Your task to perform on an android device: Open privacy settings Image 0: 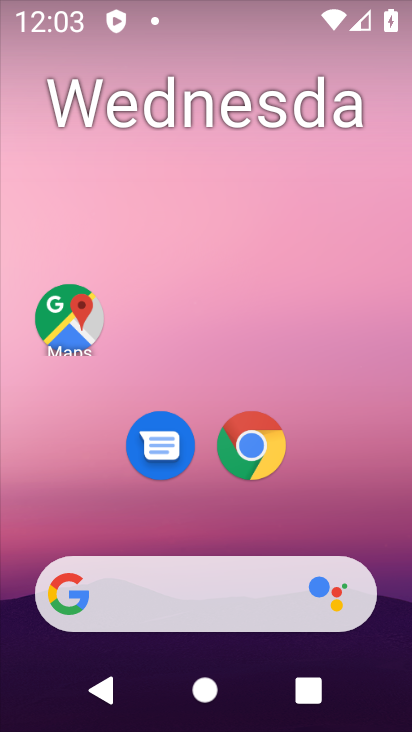
Step 0: click (266, 471)
Your task to perform on an android device: Open privacy settings Image 1: 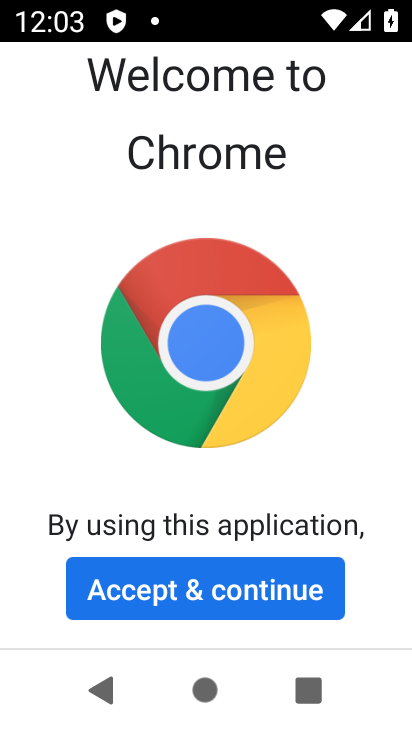
Step 1: click (277, 596)
Your task to perform on an android device: Open privacy settings Image 2: 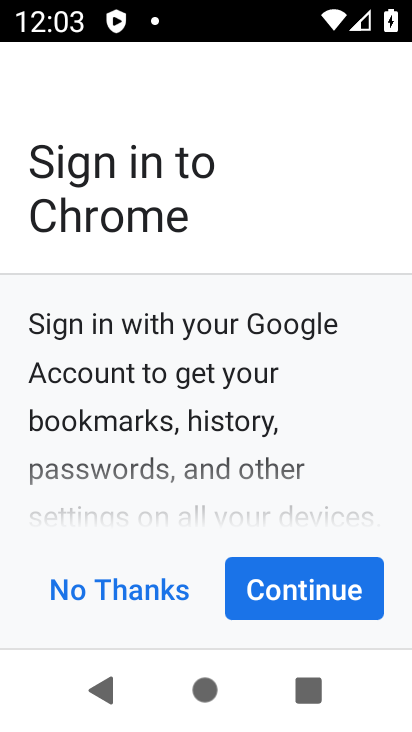
Step 2: click (320, 588)
Your task to perform on an android device: Open privacy settings Image 3: 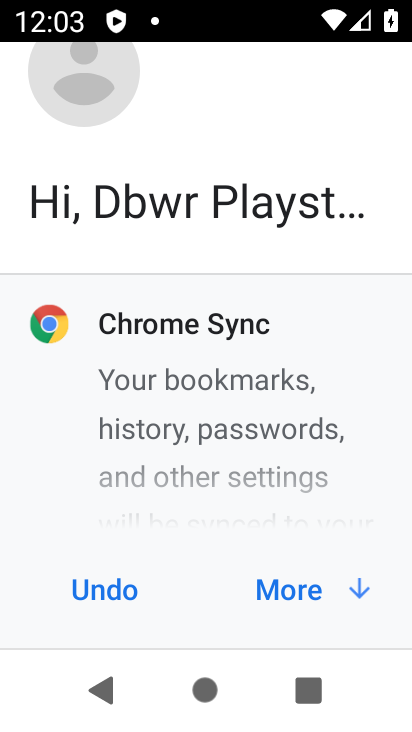
Step 3: click (321, 589)
Your task to perform on an android device: Open privacy settings Image 4: 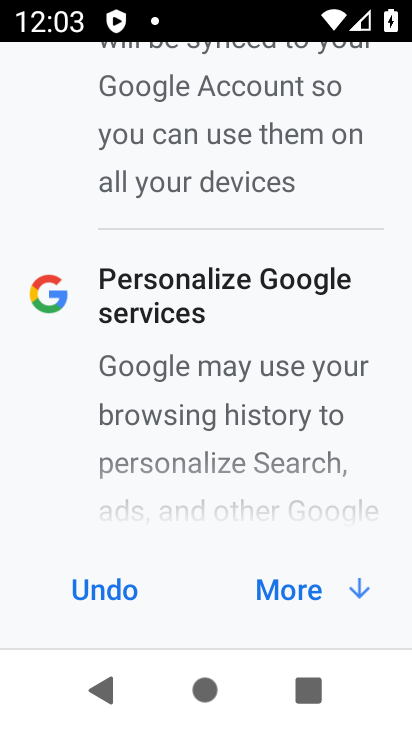
Step 4: click (310, 595)
Your task to perform on an android device: Open privacy settings Image 5: 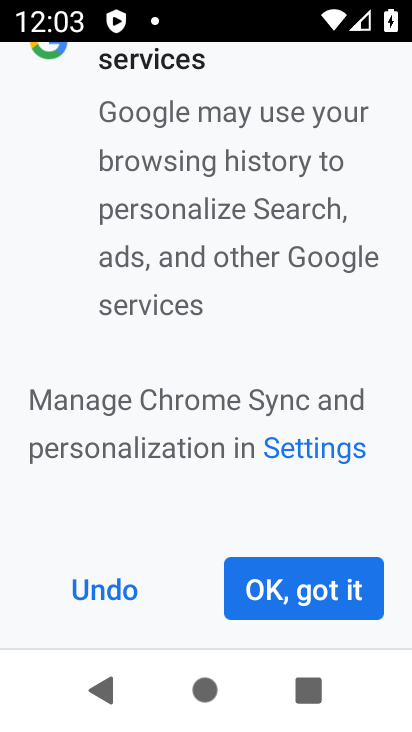
Step 5: click (310, 595)
Your task to perform on an android device: Open privacy settings Image 6: 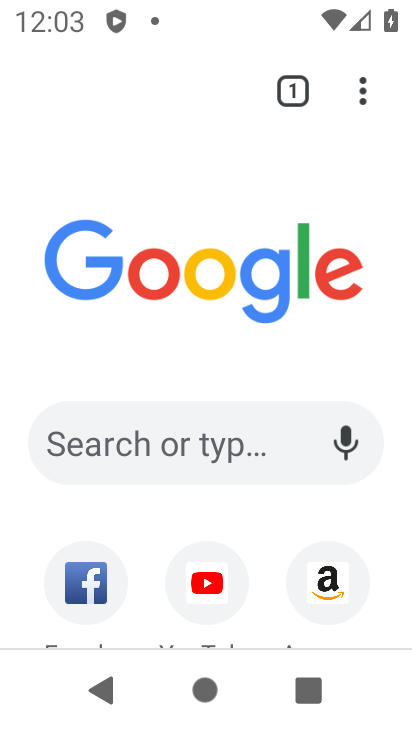
Step 6: drag from (380, 113) to (336, 496)
Your task to perform on an android device: Open privacy settings Image 7: 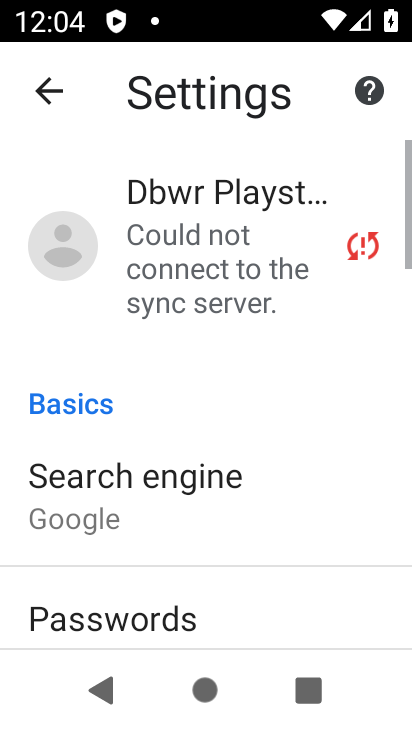
Step 7: drag from (221, 599) to (351, 126)
Your task to perform on an android device: Open privacy settings Image 8: 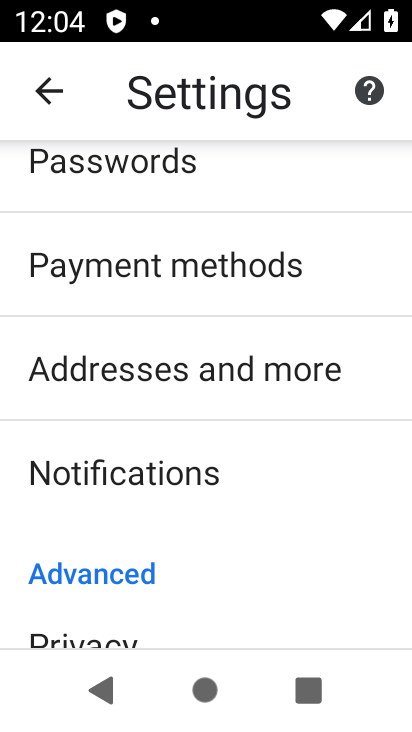
Step 8: drag from (210, 592) to (249, 446)
Your task to perform on an android device: Open privacy settings Image 9: 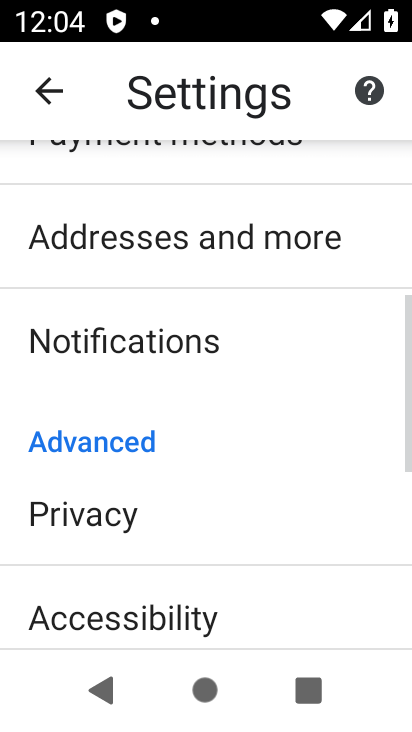
Step 9: click (168, 525)
Your task to perform on an android device: Open privacy settings Image 10: 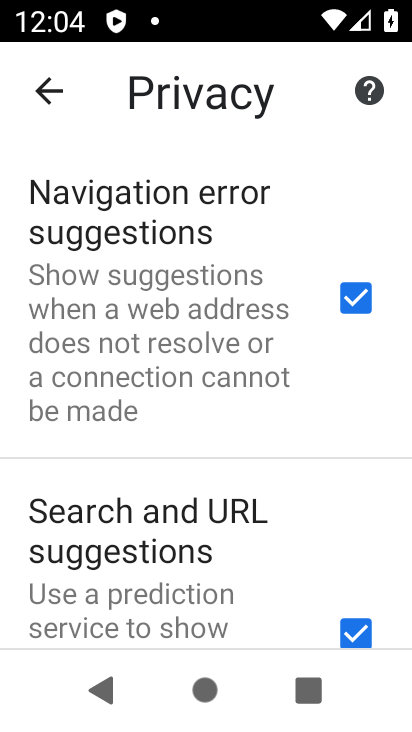
Step 10: task complete